Your task to perform on an android device: set the timer Image 0: 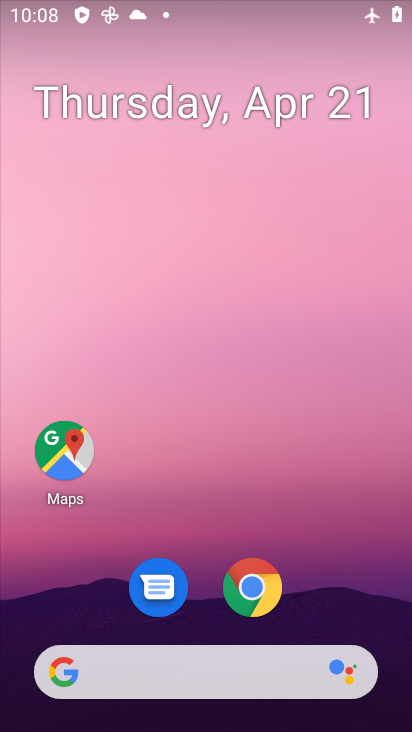
Step 0: drag from (347, 571) to (351, 72)
Your task to perform on an android device: set the timer Image 1: 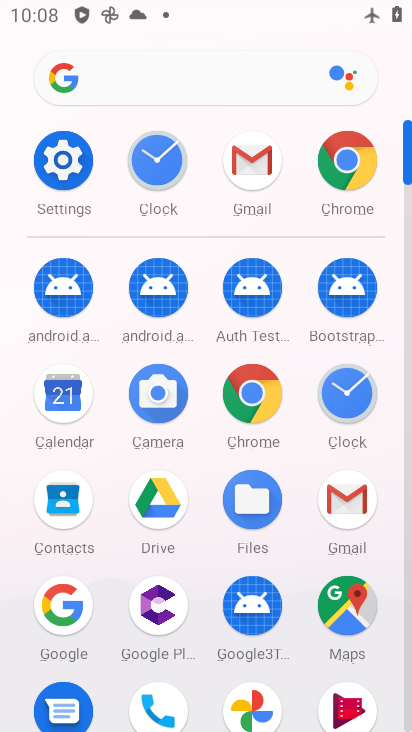
Step 1: click (361, 398)
Your task to perform on an android device: set the timer Image 2: 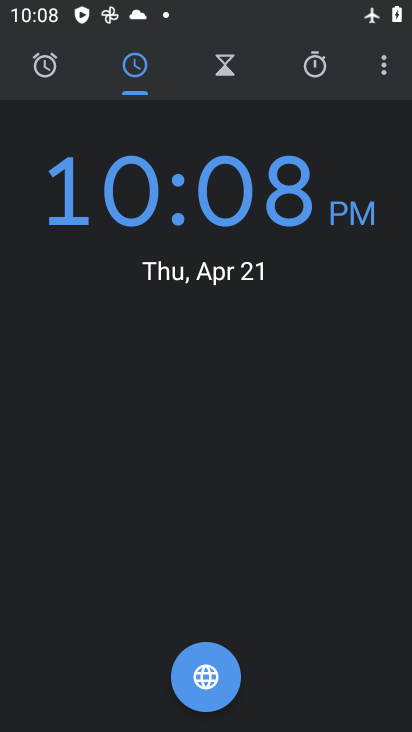
Step 2: click (225, 71)
Your task to perform on an android device: set the timer Image 3: 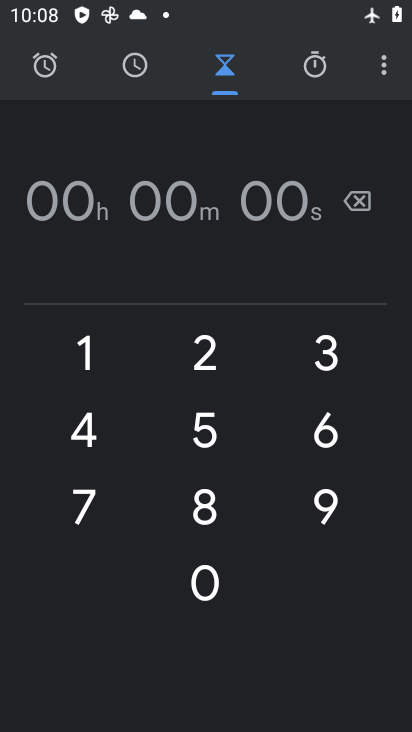
Step 3: click (205, 426)
Your task to perform on an android device: set the timer Image 4: 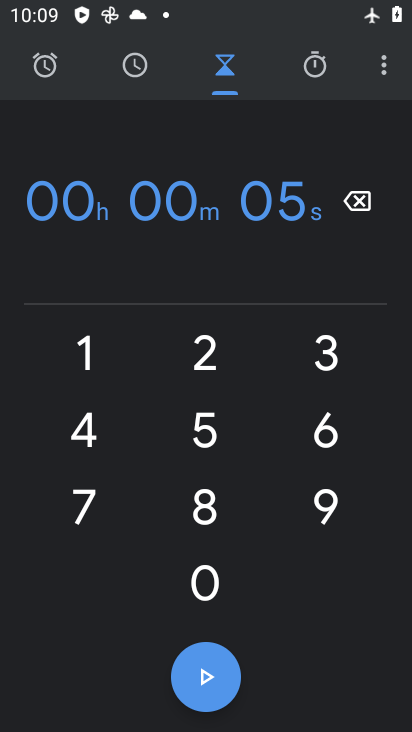
Step 4: click (202, 688)
Your task to perform on an android device: set the timer Image 5: 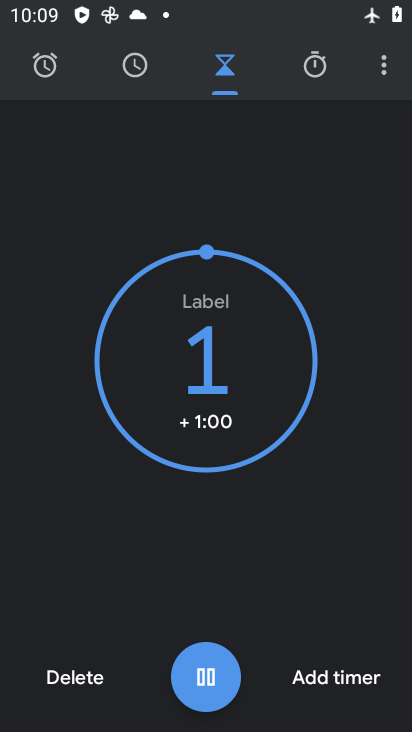
Step 5: task complete